Your task to perform on an android device: turn off improve location accuracy Image 0: 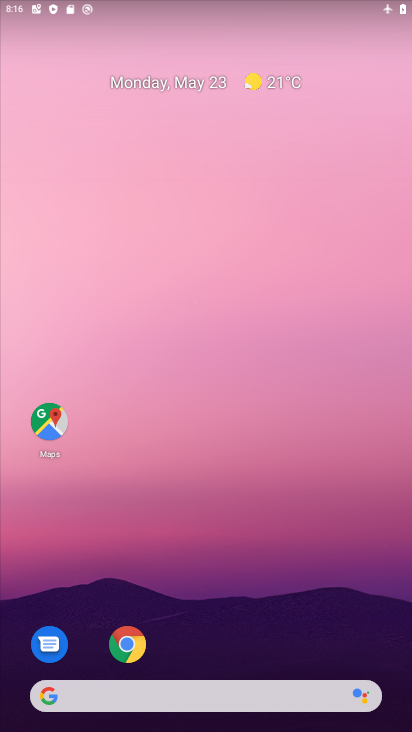
Step 0: drag from (187, 726) to (285, 0)
Your task to perform on an android device: turn off improve location accuracy Image 1: 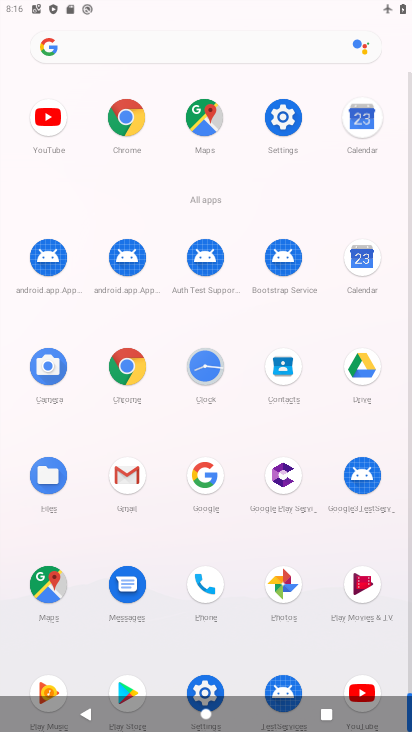
Step 1: click (294, 112)
Your task to perform on an android device: turn off improve location accuracy Image 2: 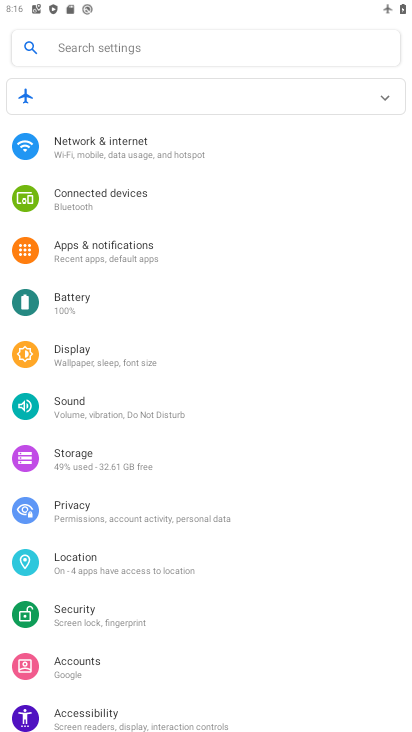
Step 2: click (95, 572)
Your task to perform on an android device: turn off improve location accuracy Image 3: 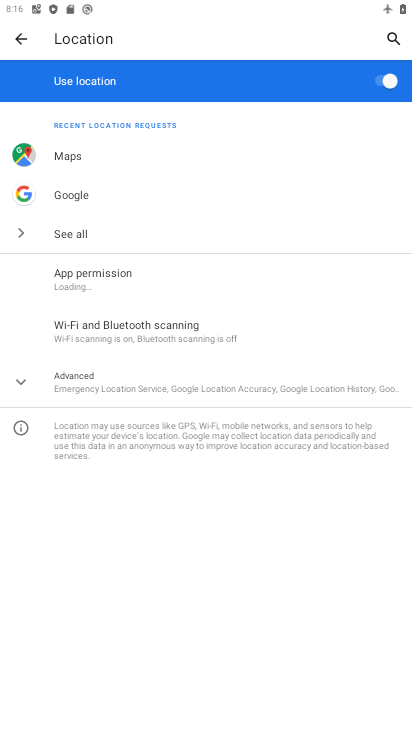
Step 3: click (195, 277)
Your task to perform on an android device: turn off improve location accuracy Image 4: 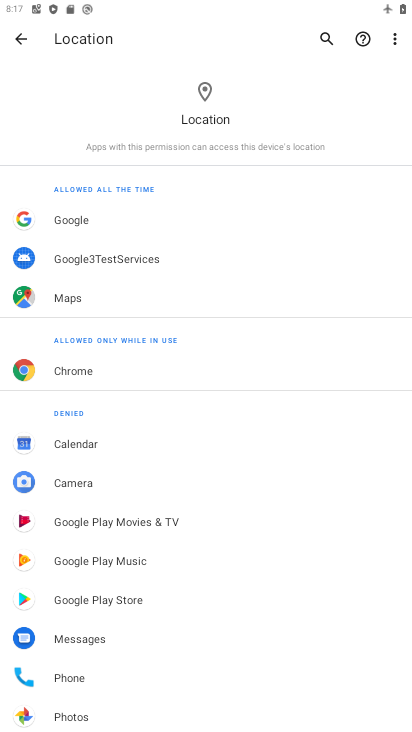
Step 4: press back button
Your task to perform on an android device: turn off improve location accuracy Image 5: 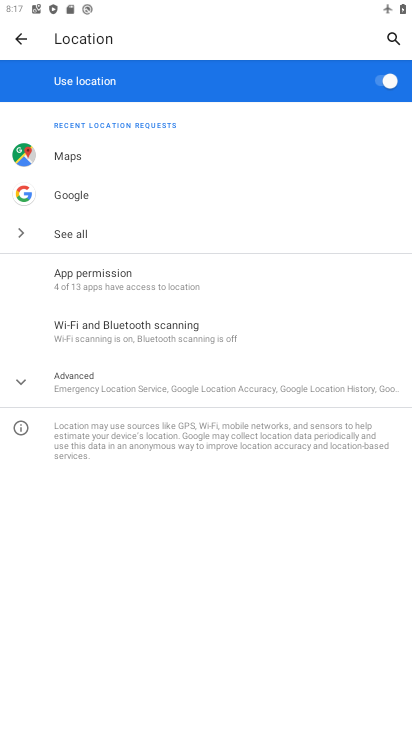
Step 5: click (366, 387)
Your task to perform on an android device: turn off improve location accuracy Image 6: 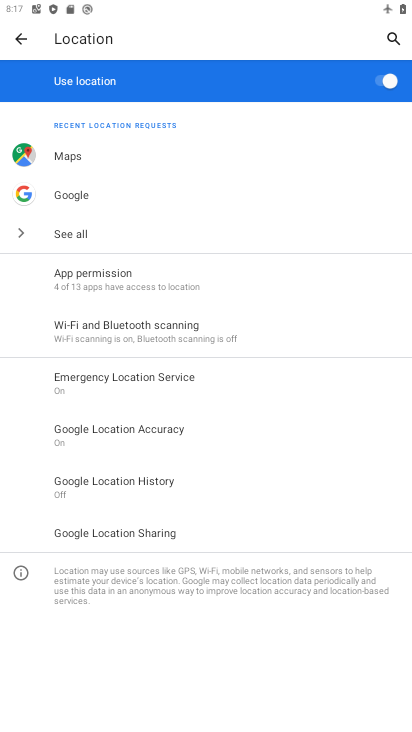
Step 6: click (187, 423)
Your task to perform on an android device: turn off improve location accuracy Image 7: 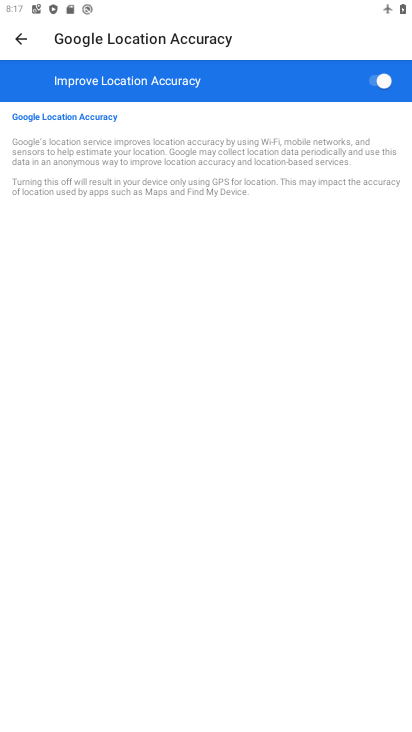
Step 7: click (376, 76)
Your task to perform on an android device: turn off improve location accuracy Image 8: 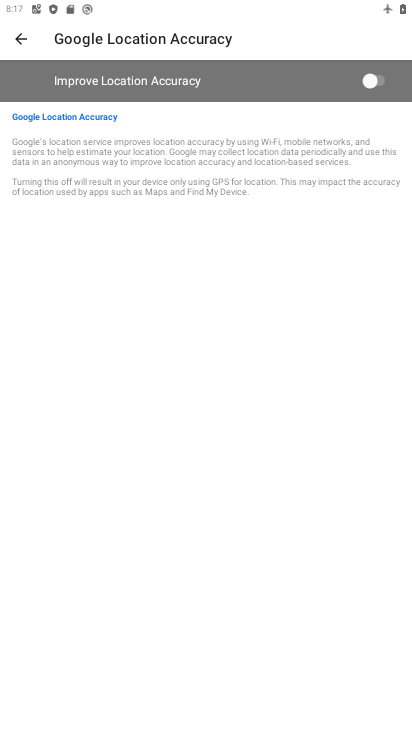
Step 8: task complete